Your task to perform on an android device: check the backup settings in the google photos Image 0: 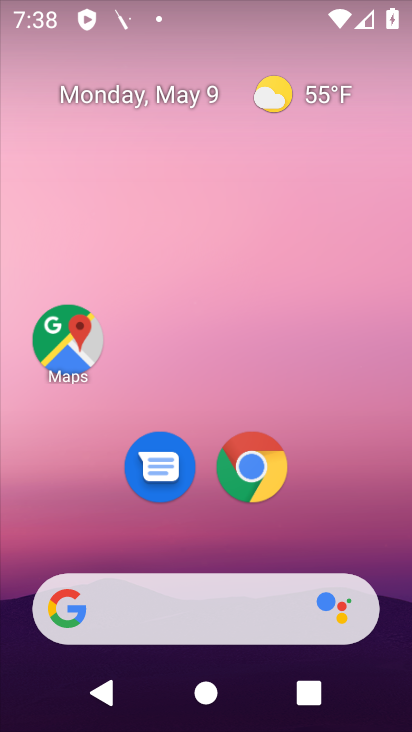
Step 0: drag from (378, 549) to (362, 4)
Your task to perform on an android device: check the backup settings in the google photos Image 1: 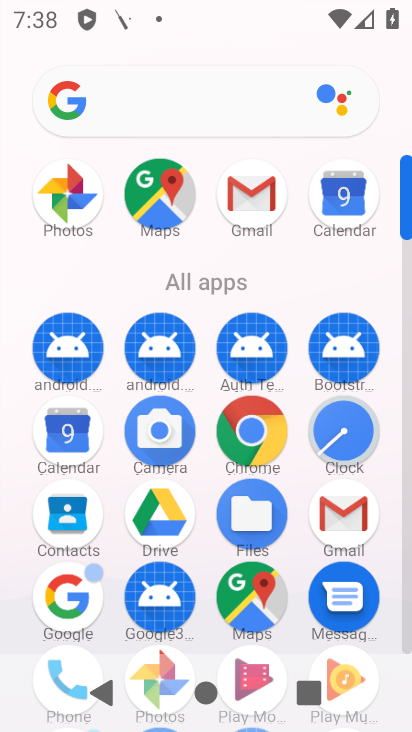
Step 1: click (68, 200)
Your task to perform on an android device: check the backup settings in the google photos Image 2: 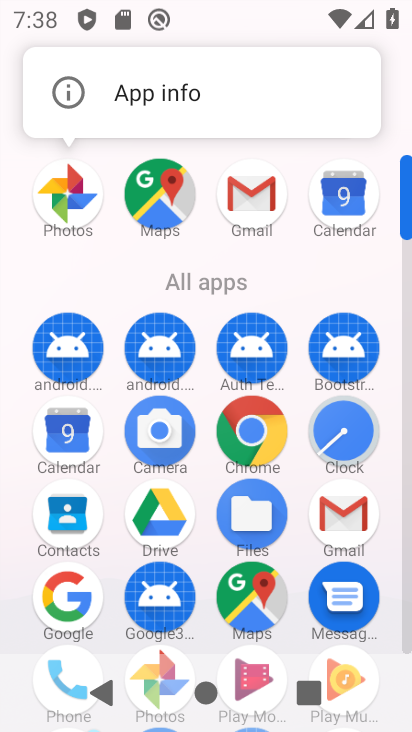
Step 2: click (63, 200)
Your task to perform on an android device: check the backup settings in the google photos Image 3: 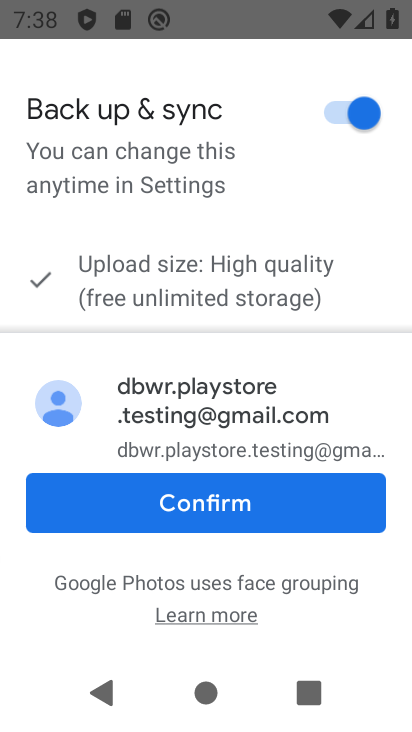
Step 3: click (218, 513)
Your task to perform on an android device: check the backup settings in the google photos Image 4: 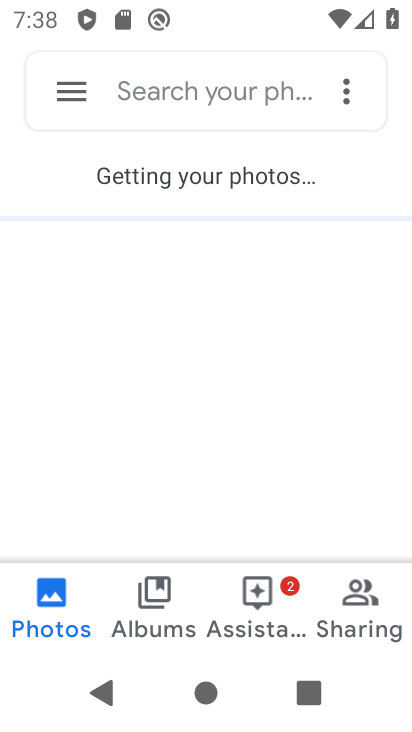
Step 4: click (68, 103)
Your task to perform on an android device: check the backup settings in the google photos Image 5: 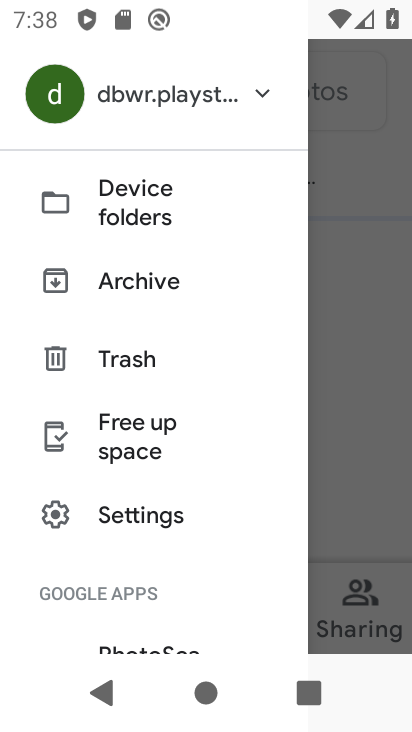
Step 5: click (121, 532)
Your task to perform on an android device: check the backup settings in the google photos Image 6: 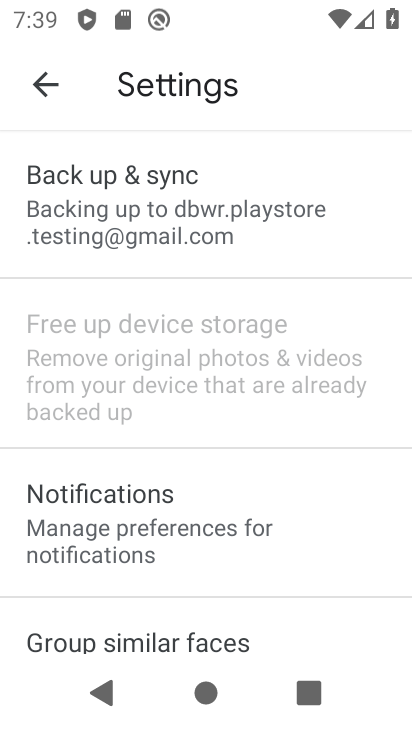
Step 6: click (113, 226)
Your task to perform on an android device: check the backup settings in the google photos Image 7: 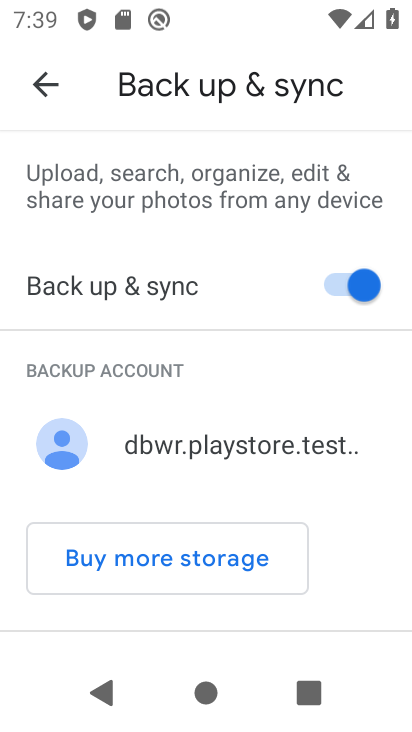
Step 7: task complete